Your task to perform on an android device: What's the top post on reddit today? Image 0: 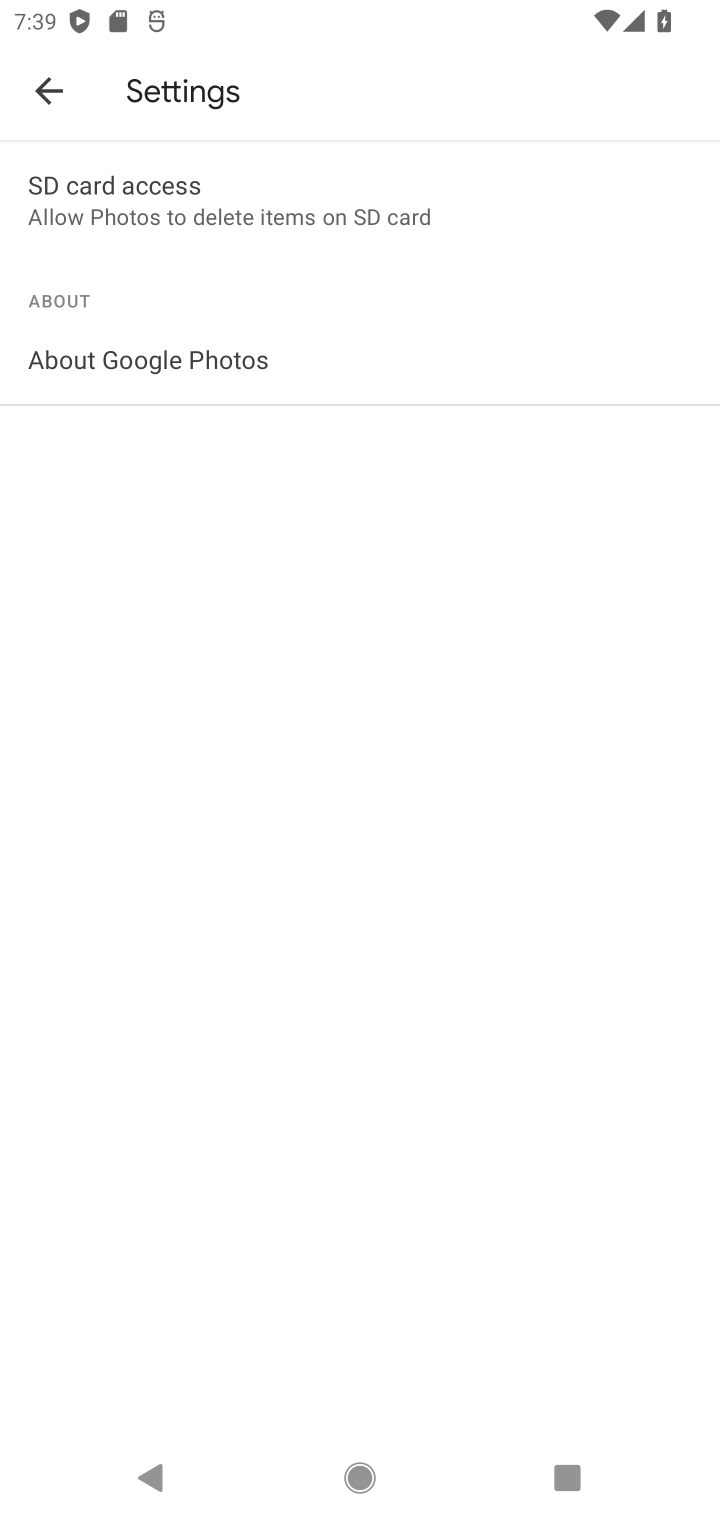
Step 0: press home button
Your task to perform on an android device: What's the top post on reddit today? Image 1: 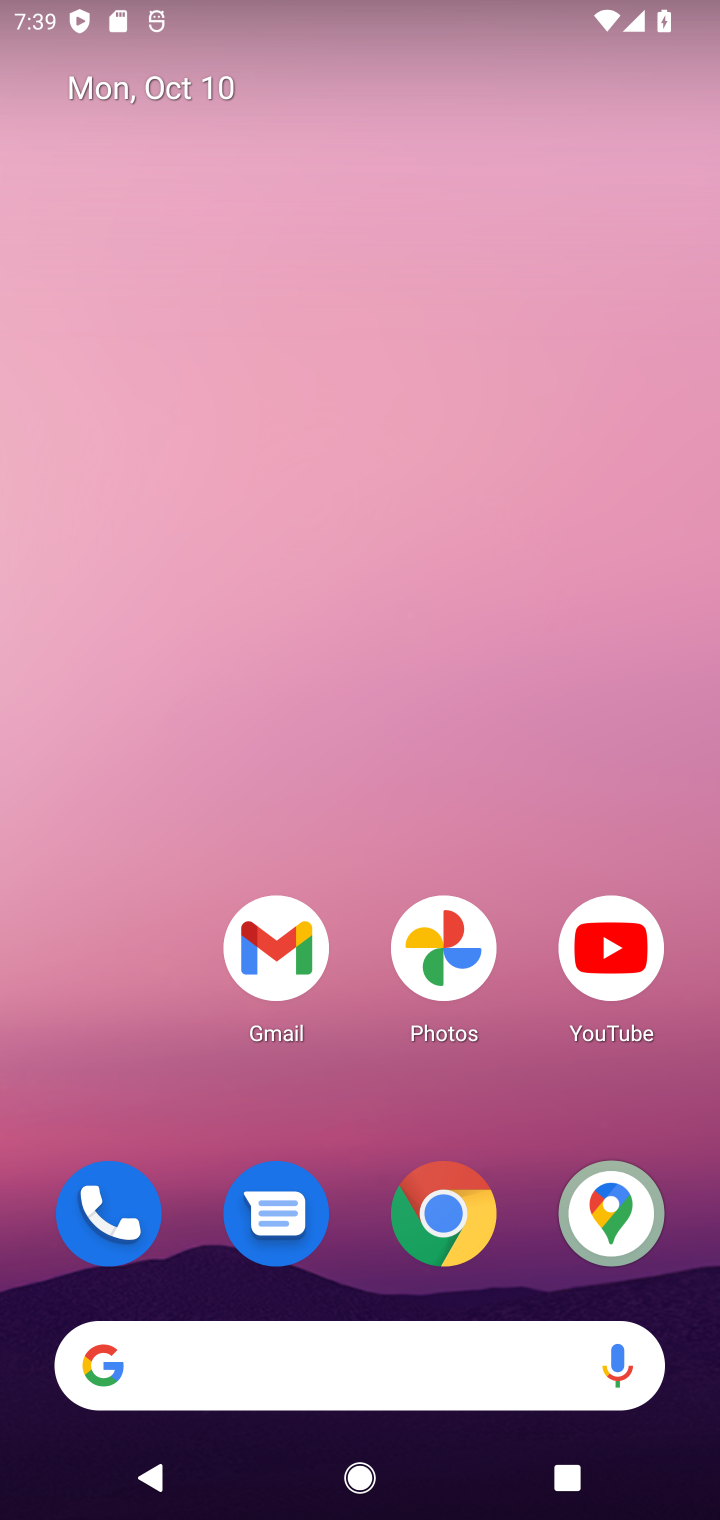
Step 1: click (245, 1380)
Your task to perform on an android device: What's the top post on reddit today? Image 2: 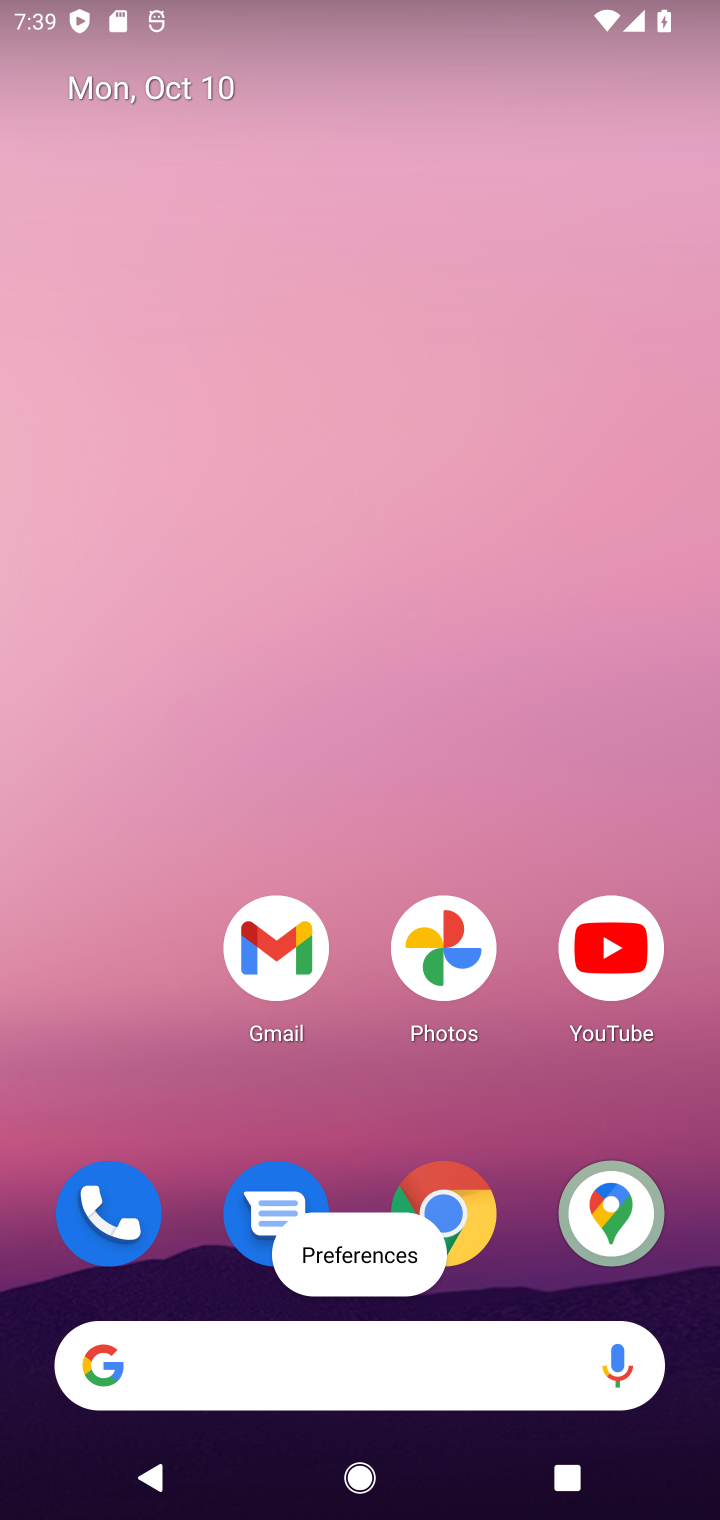
Step 2: click (265, 1365)
Your task to perform on an android device: What's the top post on reddit today? Image 3: 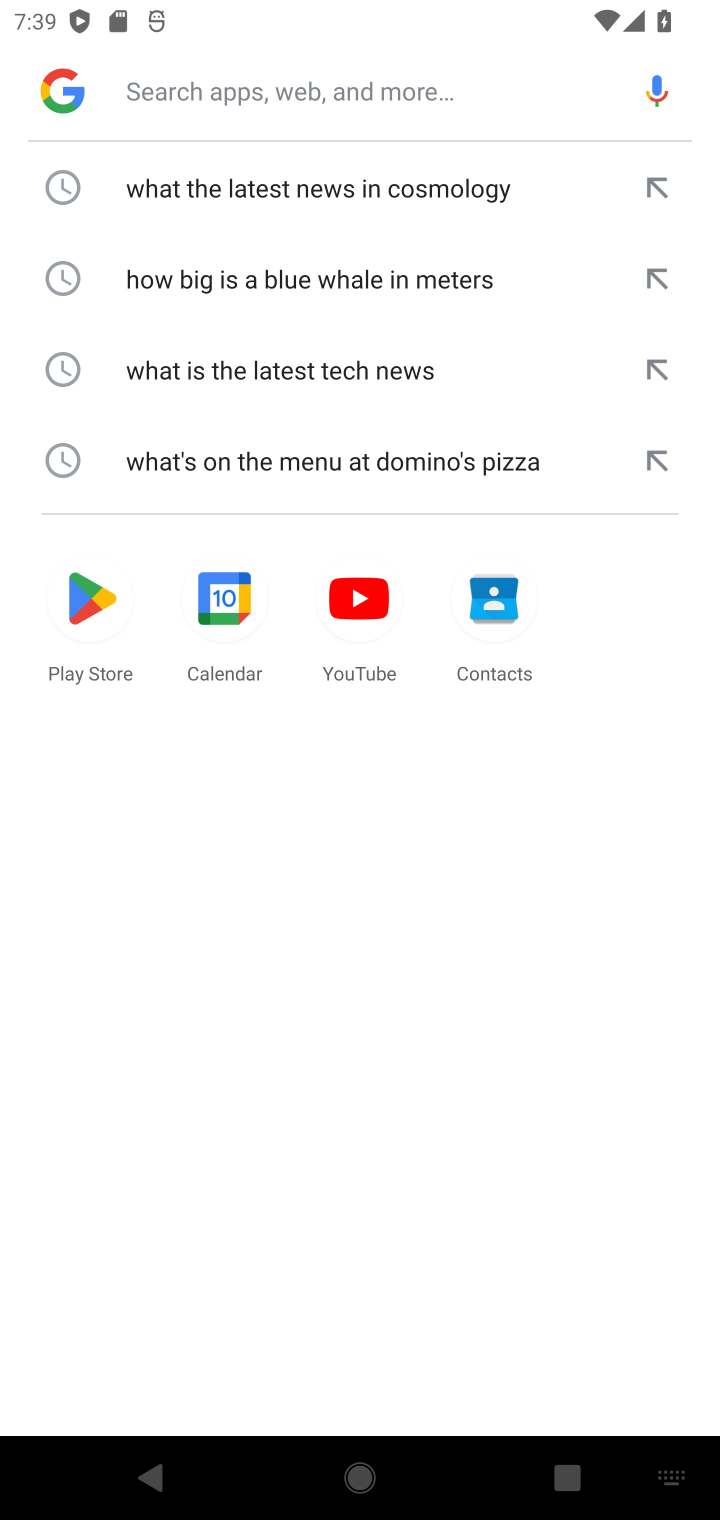
Step 3: click (198, 102)
Your task to perform on an android device: What's the top post on reddit today? Image 4: 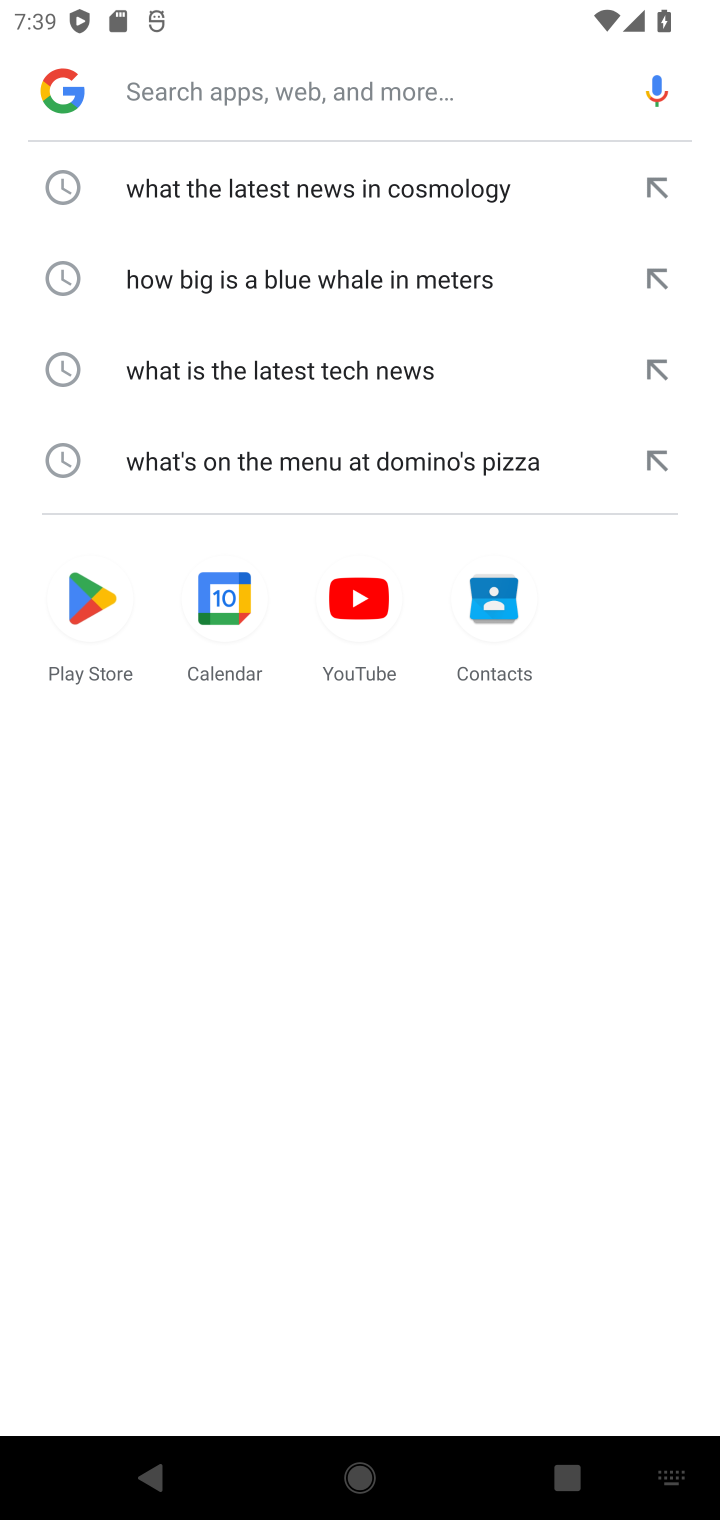
Step 4: type "What's the top post on reddit today?"
Your task to perform on an android device: What's the top post on reddit today? Image 5: 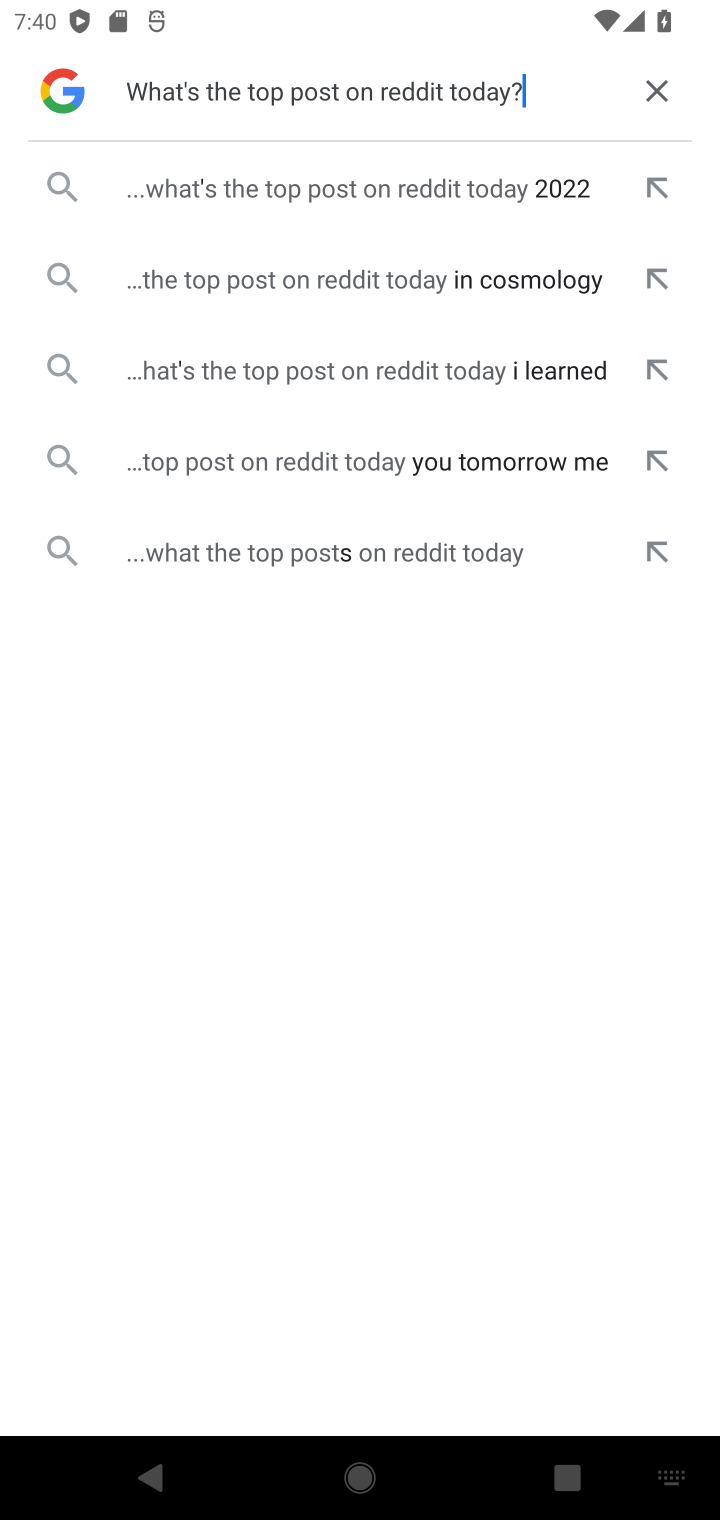
Step 5: click (333, 184)
Your task to perform on an android device: What's the top post on reddit today? Image 6: 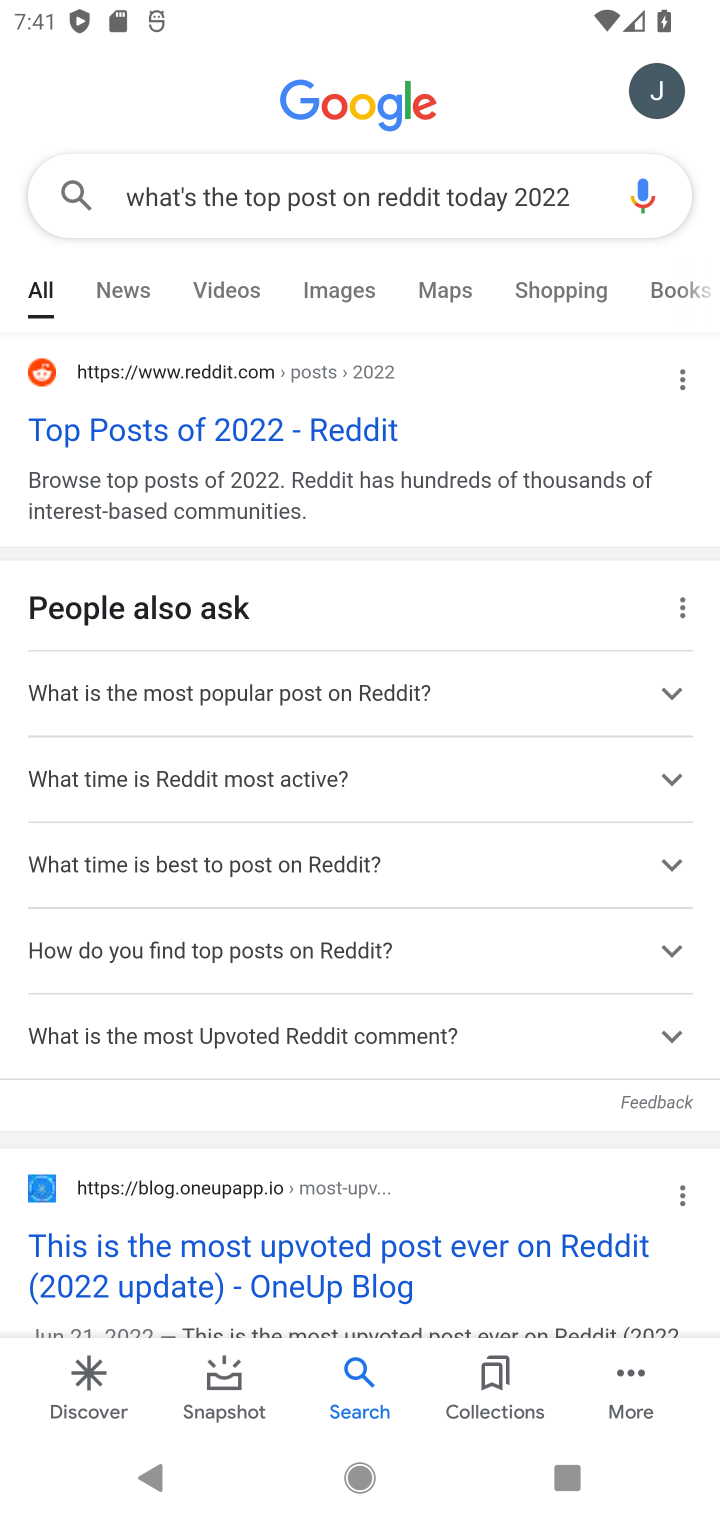
Step 6: drag from (143, 1118) to (538, 1362)
Your task to perform on an android device: What's the top post on reddit today? Image 7: 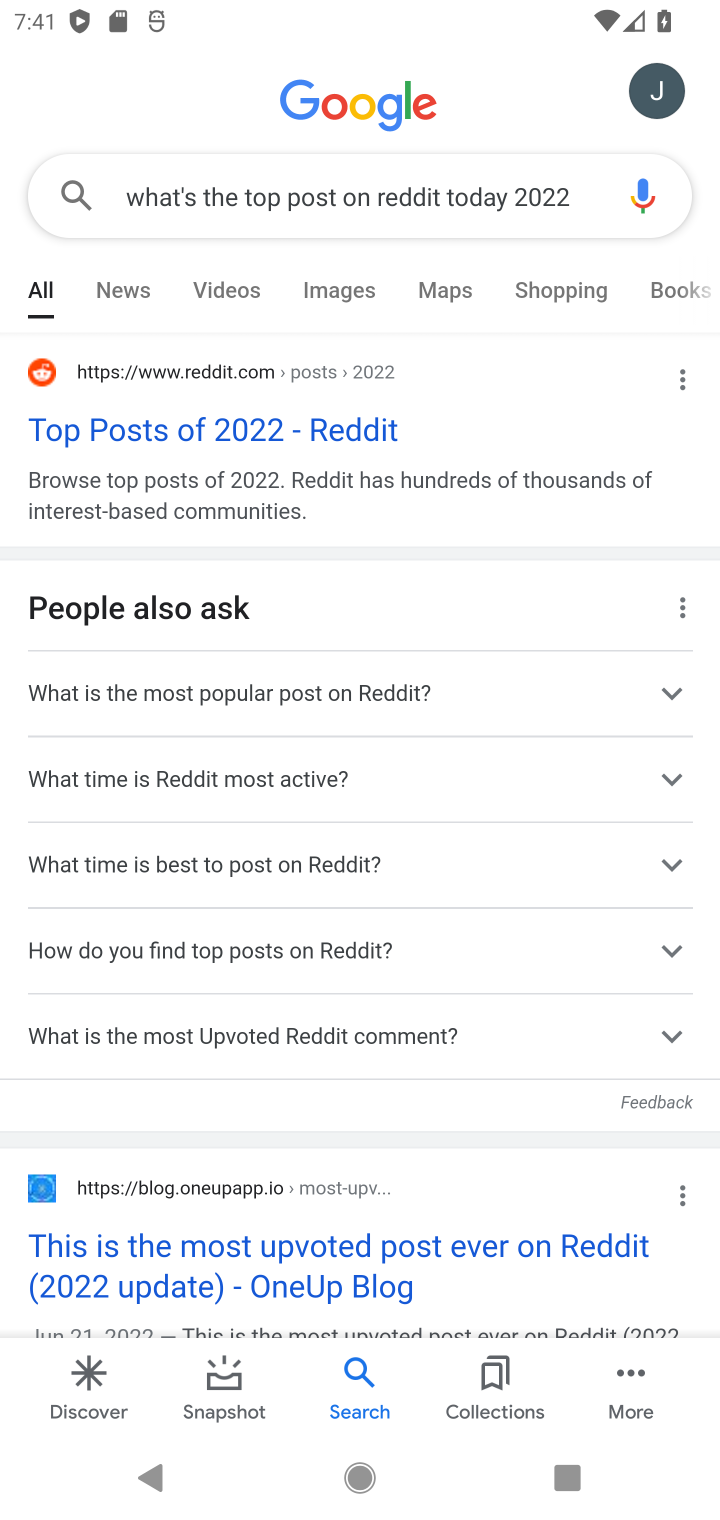
Step 7: click (127, 417)
Your task to perform on an android device: What's the top post on reddit today? Image 8: 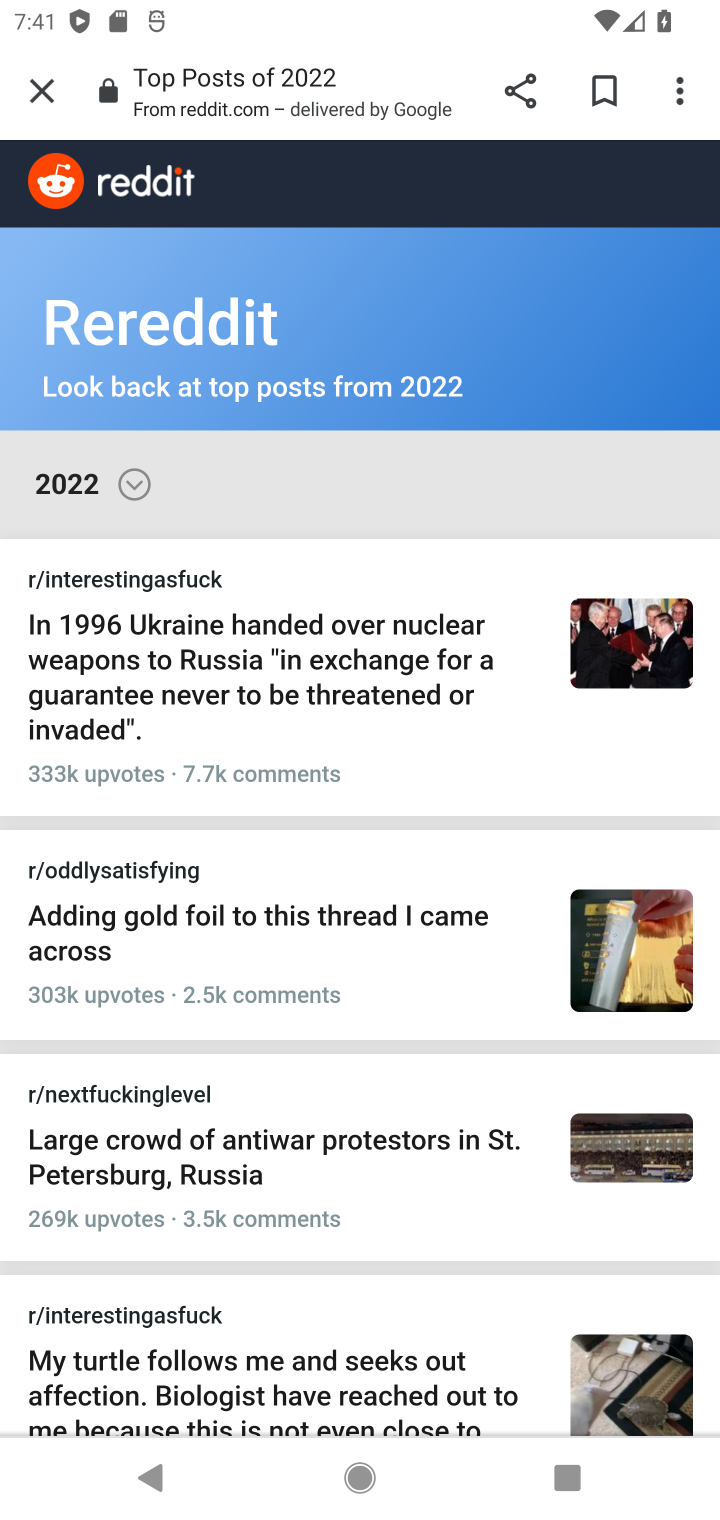
Step 8: task complete